Your task to perform on an android device: Go to notification settings Image 0: 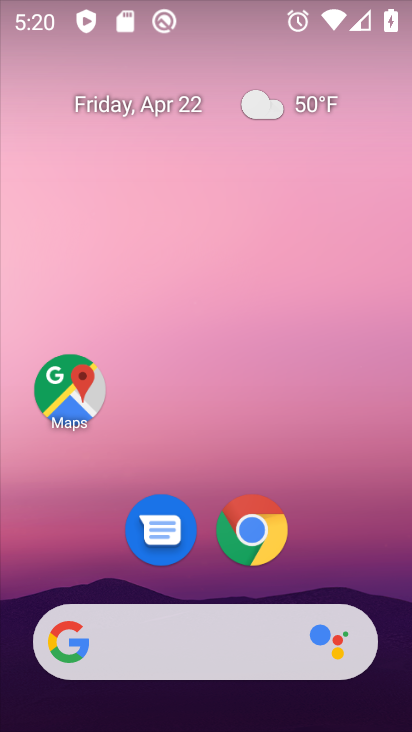
Step 0: drag from (350, 555) to (335, 85)
Your task to perform on an android device: Go to notification settings Image 1: 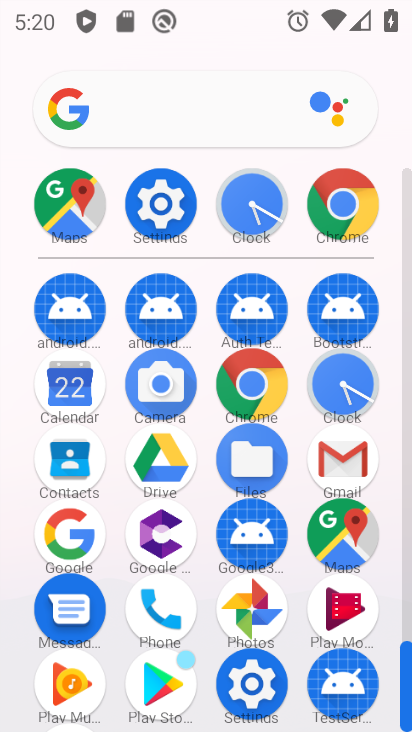
Step 1: click (246, 682)
Your task to perform on an android device: Go to notification settings Image 2: 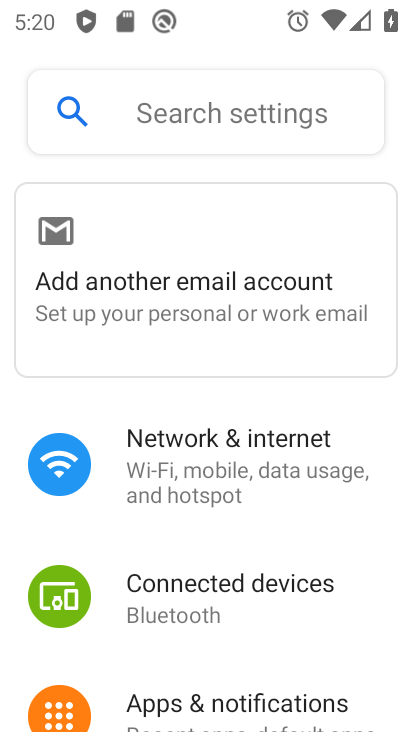
Step 2: click (212, 700)
Your task to perform on an android device: Go to notification settings Image 3: 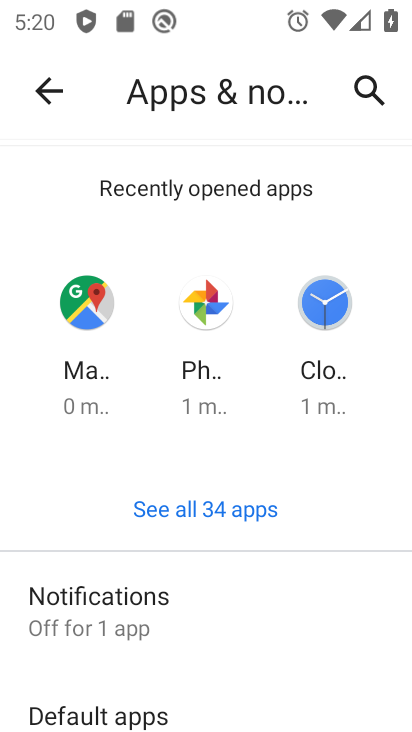
Step 3: click (90, 624)
Your task to perform on an android device: Go to notification settings Image 4: 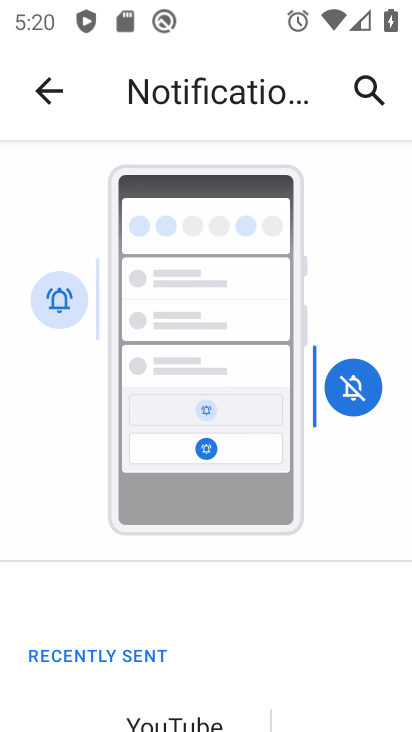
Step 4: task complete